Your task to perform on an android device: find snoozed emails in the gmail app Image 0: 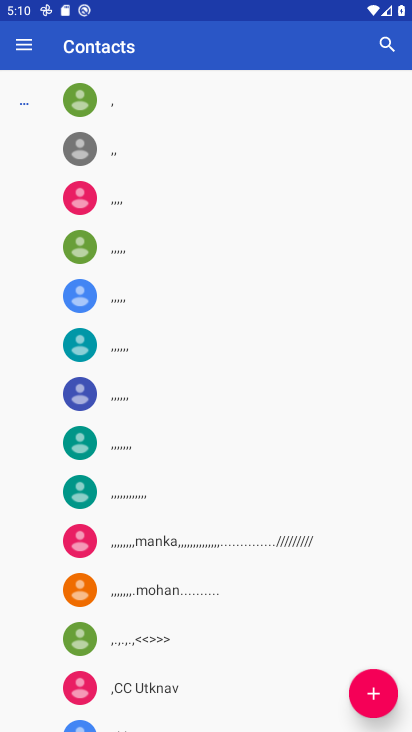
Step 0: press back button
Your task to perform on an android device: find snoozed emails in the gmail app Image 1: 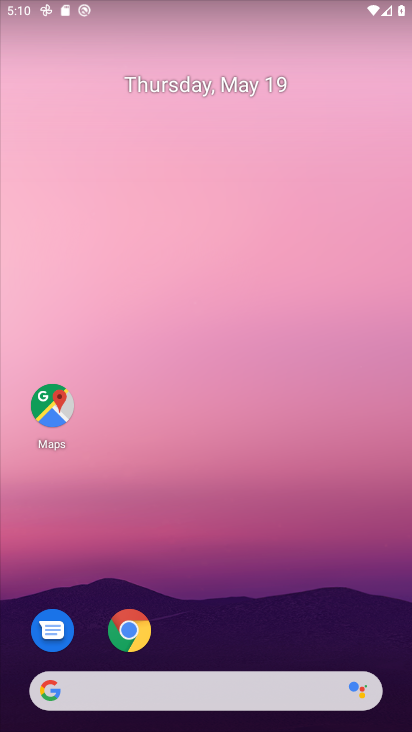
Step 1: drag from (263, 561) to (204, 3)
Your task to perform on an android device: find snoozed emails in the gmail app Image 2: 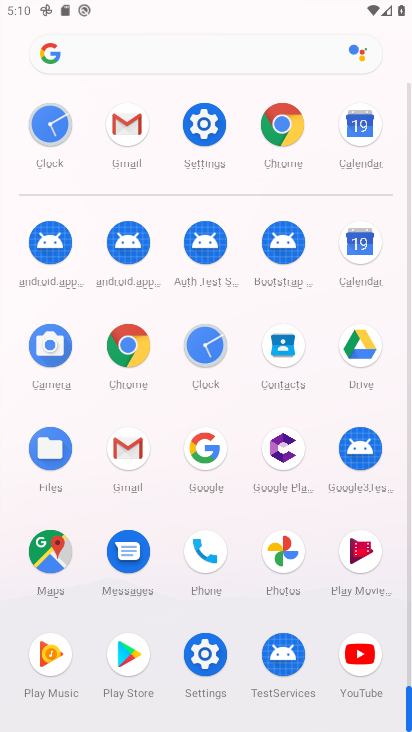
Step 2: click (127, 443)
Your task to perform on an android device: find snoozed emails in the gmail app Image 3: 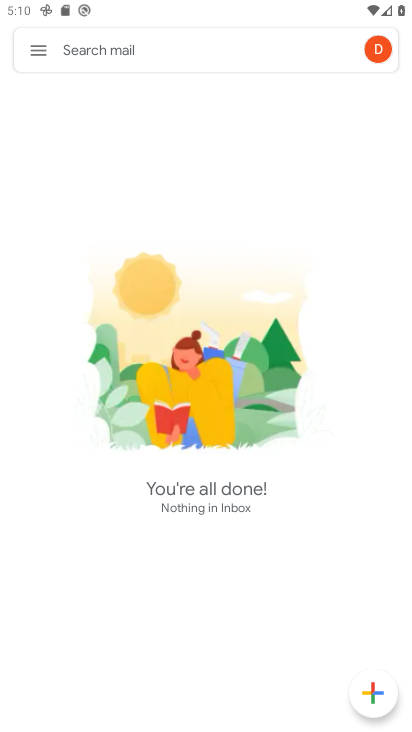
Step 3: click (29, 30)
Your task to perform on an android device: find snoozed emails in the gmail app Image 4: 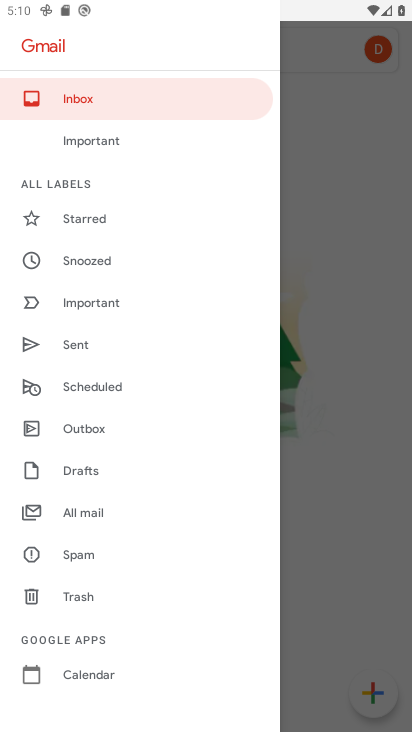
Step 4: click (108, 255)
Your task to perform on an android device: find snoozed emails in the gmail app Image 5: 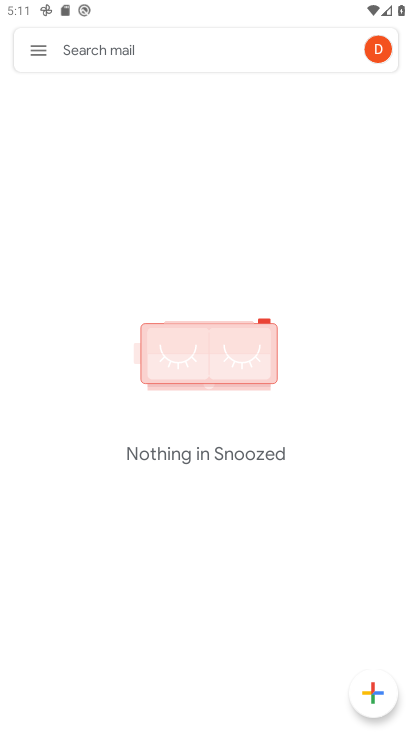
Step 5: task complete